Your task to perform on an android device: empty trash in the gmail app Image 0: 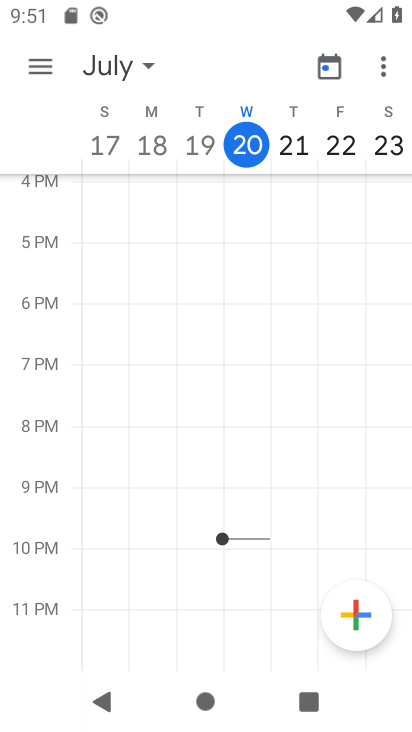
Step 0: press home button
Your task to perform on an android device: empty trash in the gmail app Image 1: 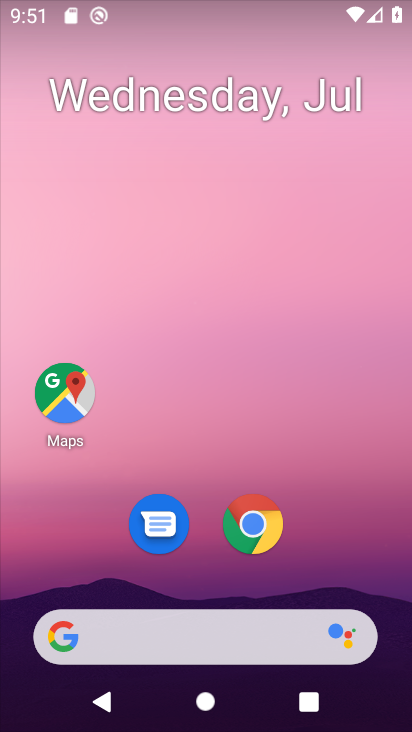
Step 1: drag from (339, 543) to (331, 36)
Your task to perform on an android device: empty trash in the gmail app Image 2: 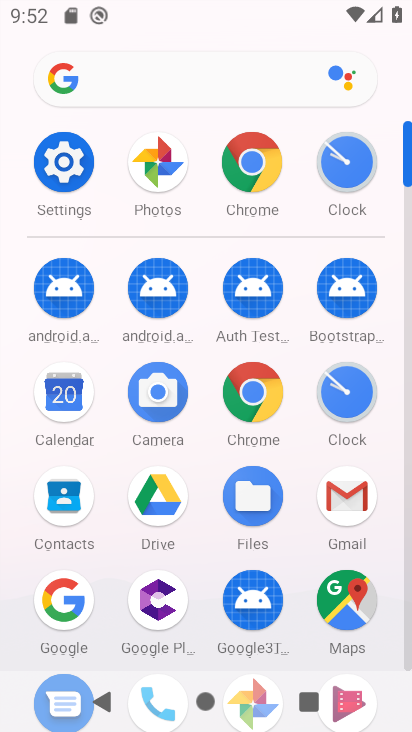
Step 2: click (361, 496)
Your task to perform on an android device: empty trash in the gmail app Image 3: 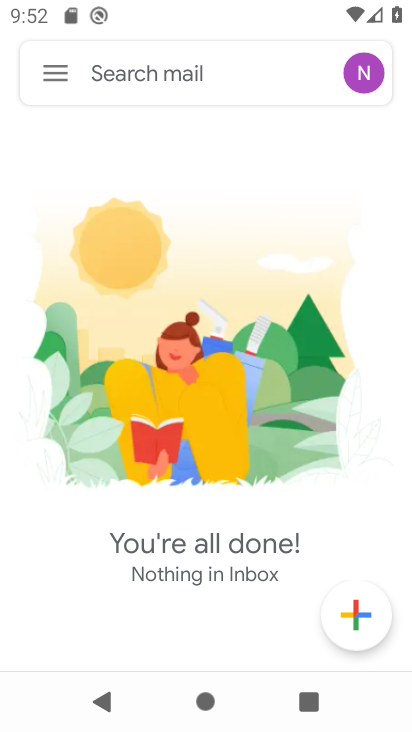
Step 3: click (59, 80)
Your task to perform on an android device: empty trash in the gmail app Image 4: 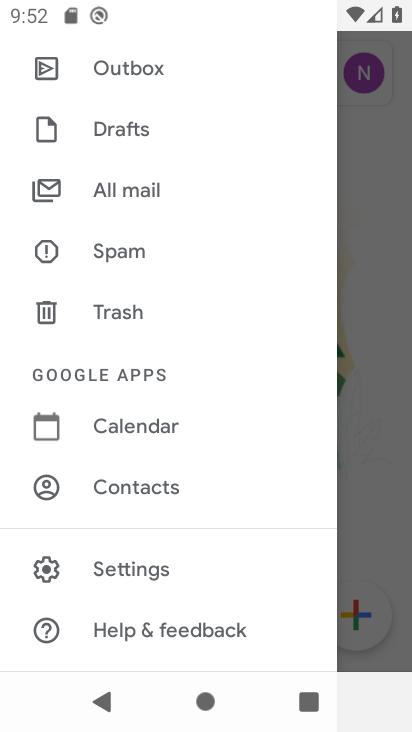
Step 4: click (106, 308)
Your task to perform on an android device: empty trash in the gmail app Image 5: 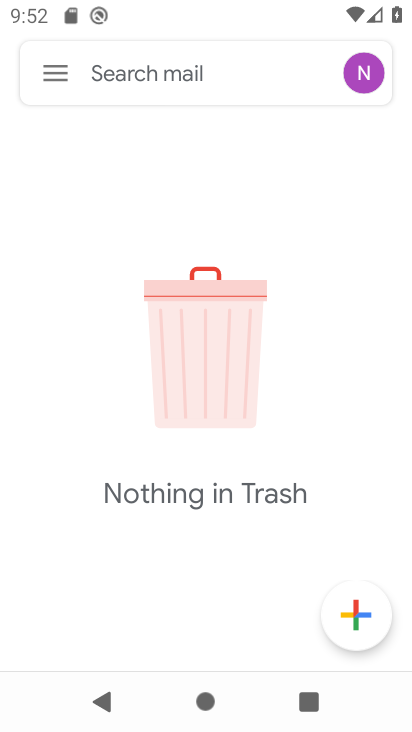
Step 5: task complete